Your task to perform on an android device: snooze an email in the gmail app Image 0: 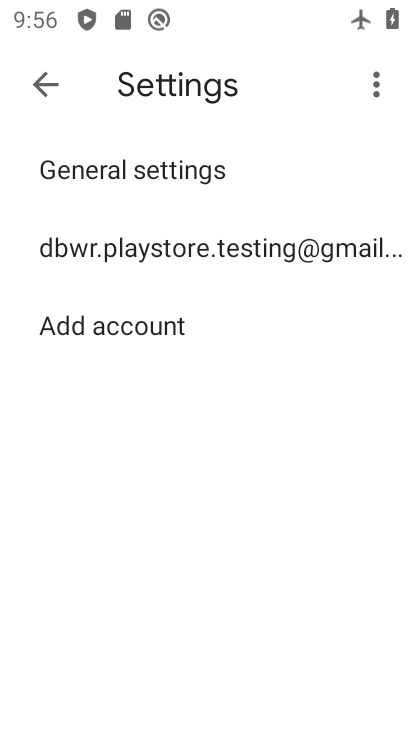
Step 0: press home button
Your task to perform on an android device: snooze an email in the gmail app Image 1: 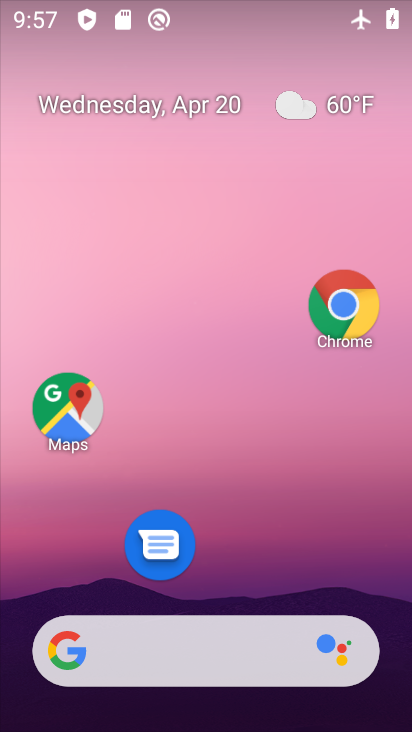
Step 1: drag from (219, 642) to (298, 323)
Your task to perform on an android device: snooze an email in the gmail app Image 2: 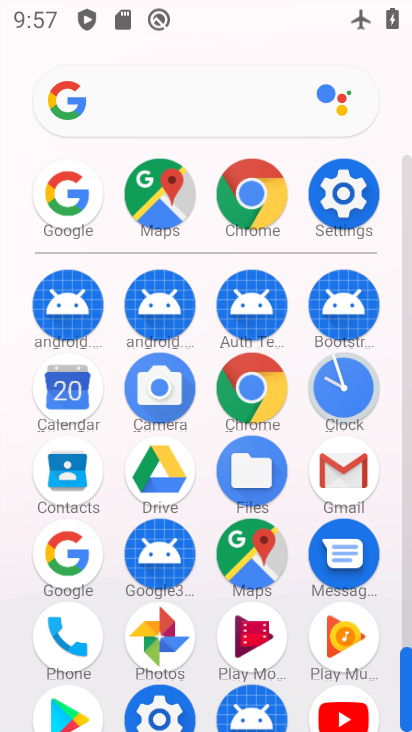
Step 2: click (356, 476)
Your task to perform on an android device: snooze an email in the gmail app Image 3: 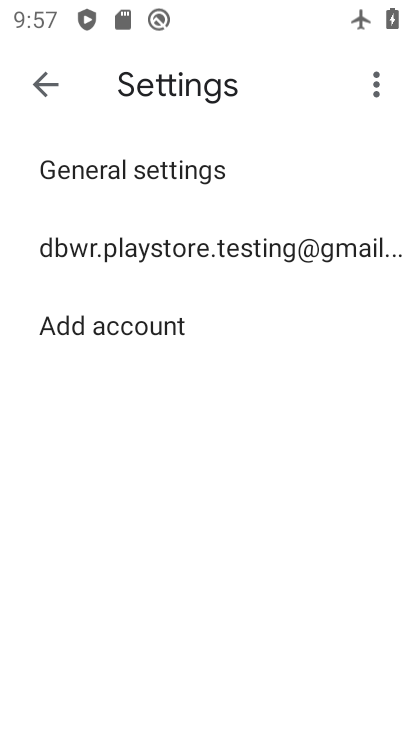
Step 3: click (51, 91)
Your task to perform on an android device: snooze an email in the gmail app Image 4: 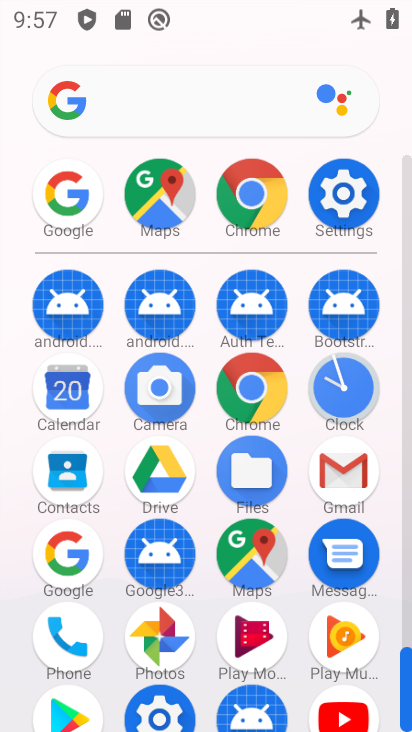
Step 4: click (358, 479)
Your task to perform on an android device: snooze an email in the gmail app Image 5: 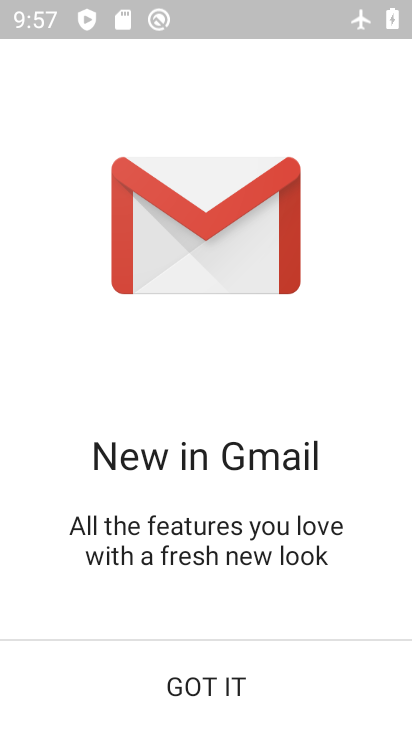
Step 5: click (205, 704)
Your task to perform on an android device: snooze an email in the gmail app Image 6: 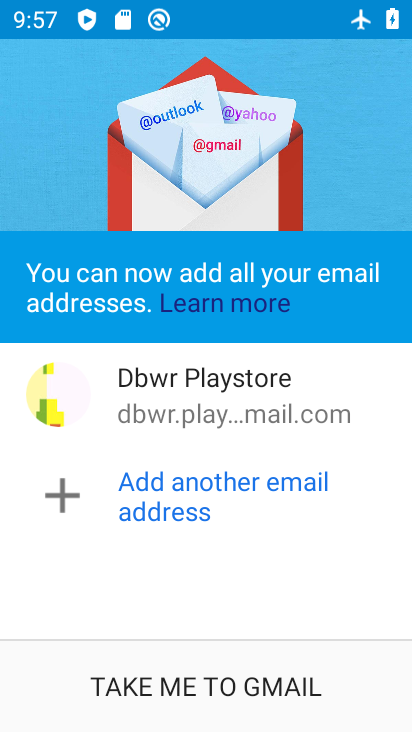
Step 6: click (189, 694)
Your task to perform on an android device: snooze an email in the gmail app Image 7: 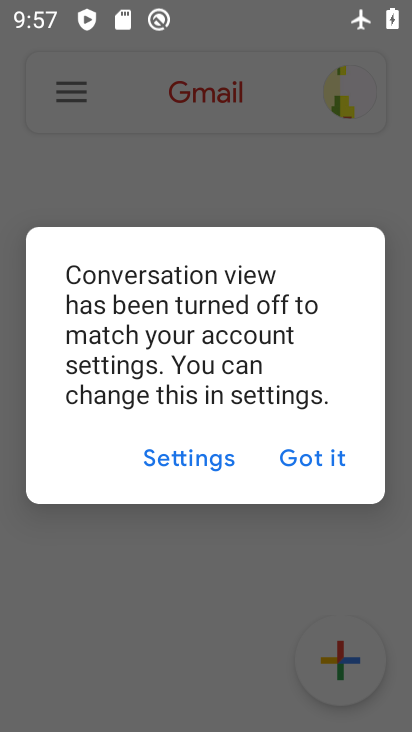
Step 7: click (313, 454)
Your task to perform on an android device: snooze an email in the gmail app Image 8: 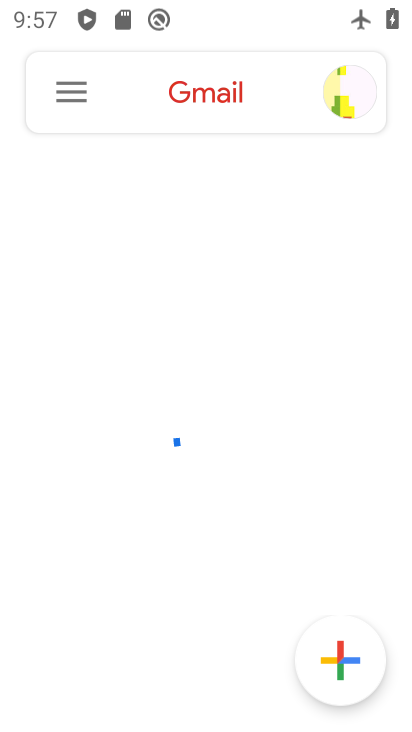
Step 8: click (65, 97)
Your task to perform on an android device: snooze an email in the gmail app Image 9: 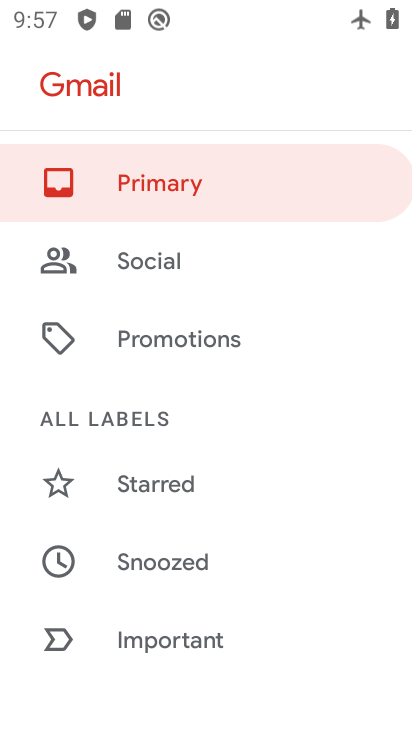
Step 9: drag from (131, 510) to (197, 178)
Your task to perform on an android device: snooze an email in the gmail app Image 10: 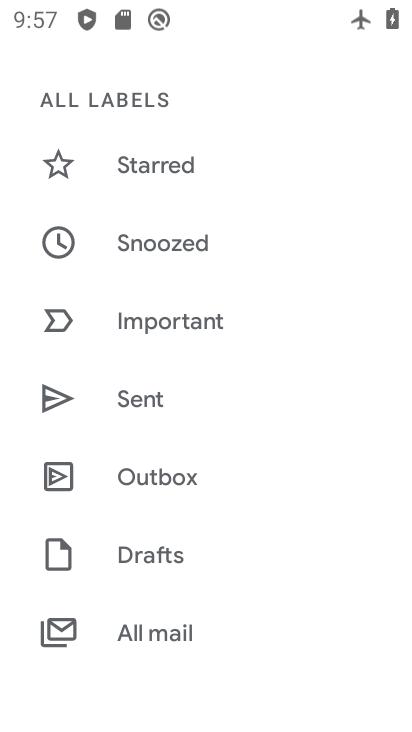
Step 10: drag from (145, 542) to (170, 404)
Your task to perform on an android device: snooze an email in the gmail app Image 11: 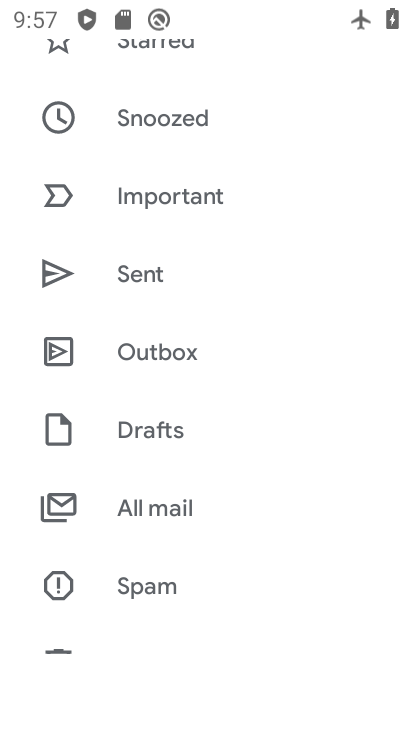
Step 11: click (174, 514)
Your task to perform on an android device: snooze an email in the gmail app Image 12: 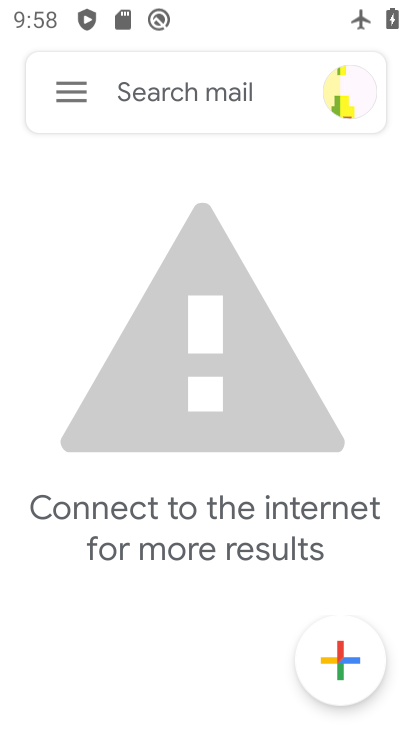
Step 12: task complete